Your task to perform on an android device: Go to eBay Image 0: 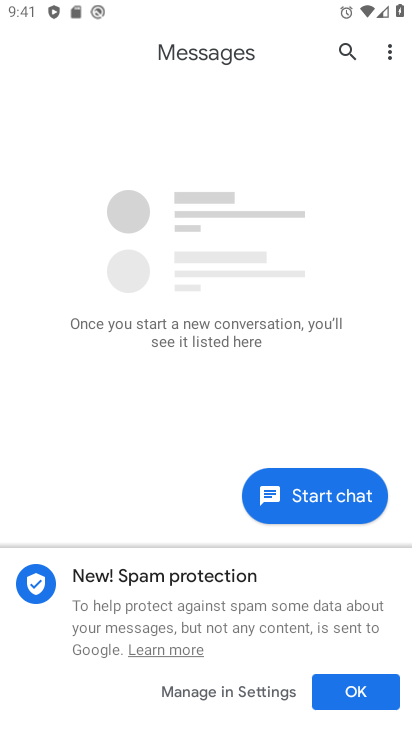
Step 0: press home button
Your task to perform on an android device: Go to eBay Image 1: 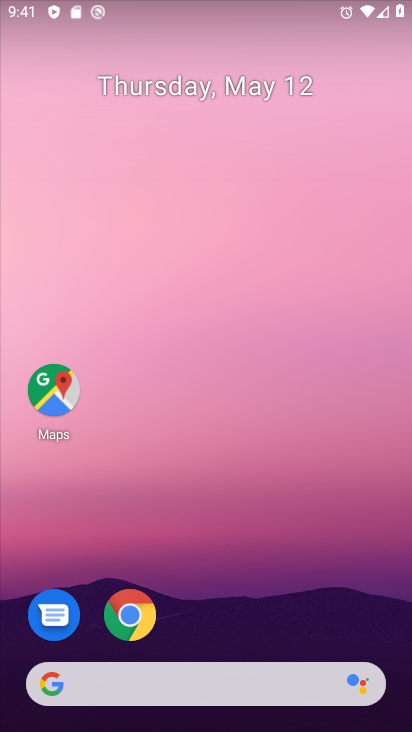
Step 1: click (137, 615)
Your task to perform on an android device: Go to eBay Image 2: 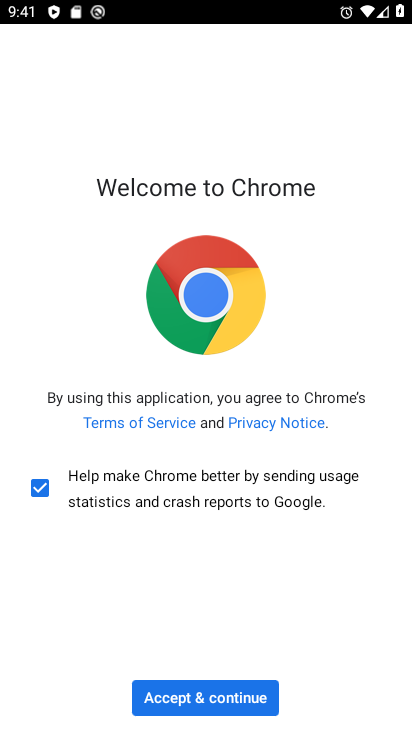
Step 2: click (244, 704)
Your task to perform on an android device: Go to eBay Image 3: 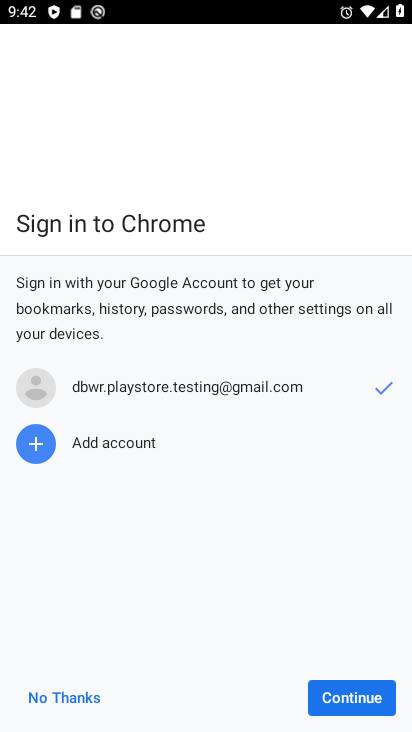
Step 3: click (375, 712)
Your task to perform on an android device: Go to eBay Image 4: 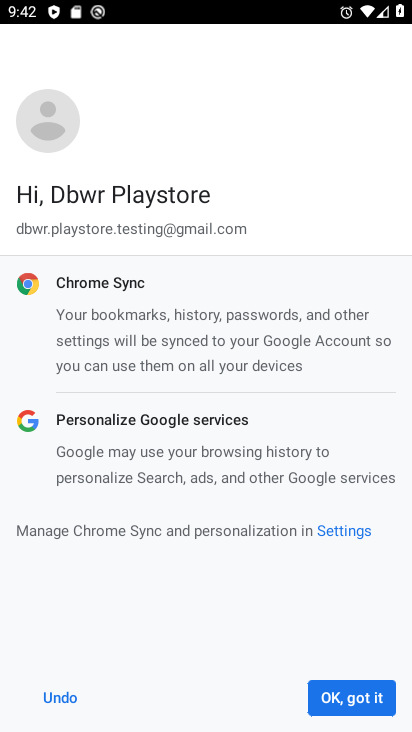
Step 4: click (340, 701)
Your task to perform on an android device: Go to eBay Image 5: 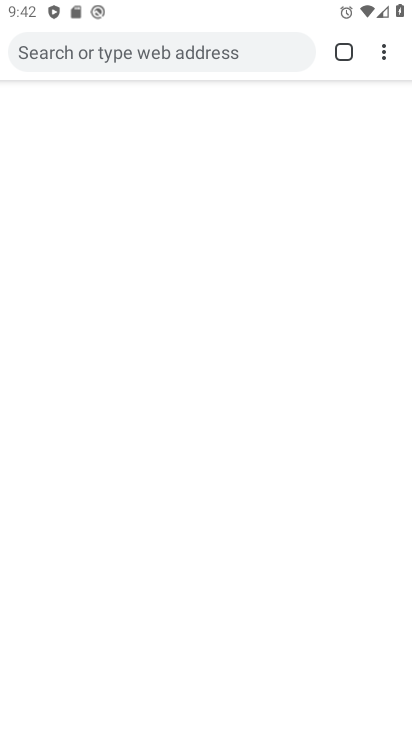
Step 5: click (220, 39)
Your task to perform on an android device: Go to eBay Image 6: 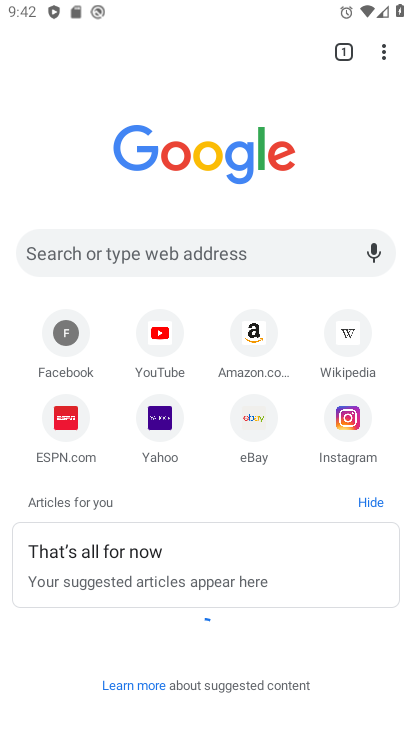
Step 6: click (231, 254)
Your task to perform on an android device: Go to eBay Image 7: 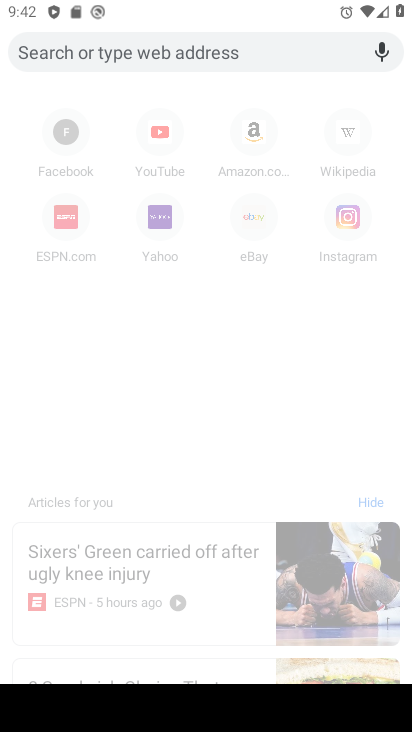
Step 7: type "ebay"
Your task to perform on an android device: Go to eBay Image 8: 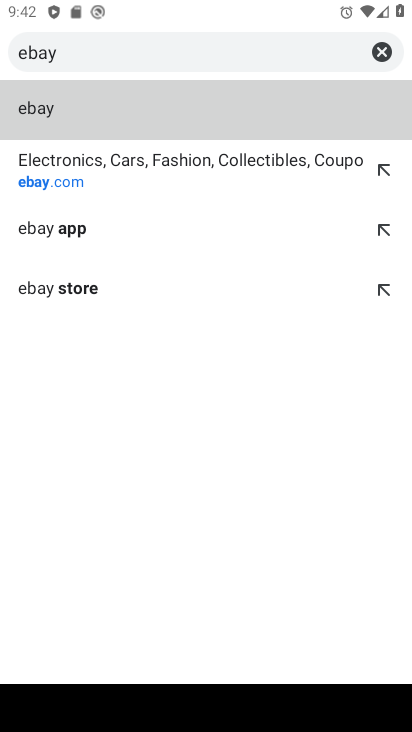
Step 8: click (49, 179)
Your task to perform on an android device: Go to eBay Image 9: 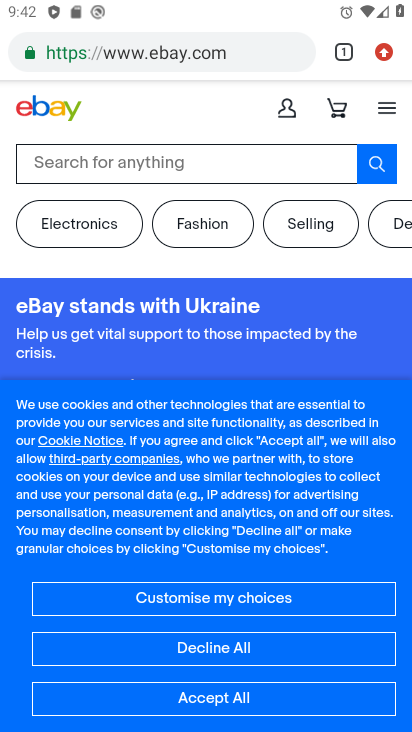
Step 9: task complete